Your task to perform on an android device: Open network settings Image 0: 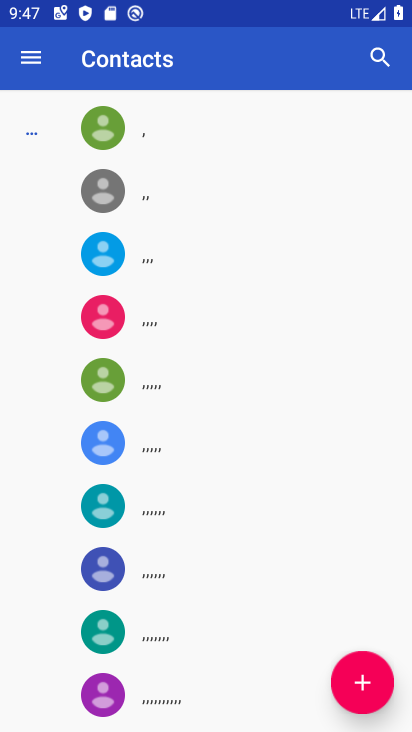
Step 0: press home button
Your task to perform on an android device: Open network settings Image 1: 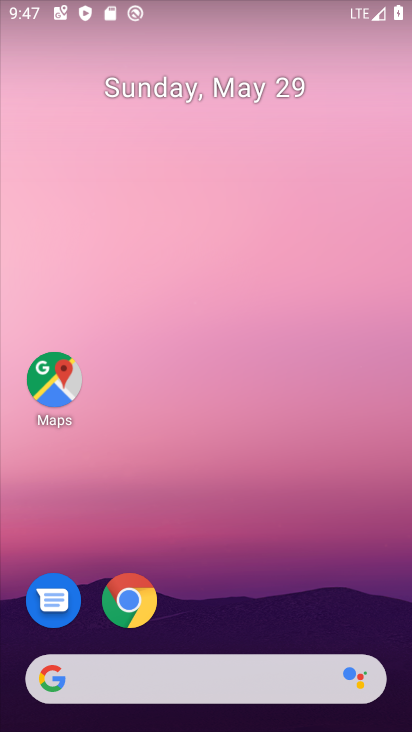
Step 1: drag from (240, 623) to (253, 54)
Your task to perform on an android device: Open network settings Image 2: 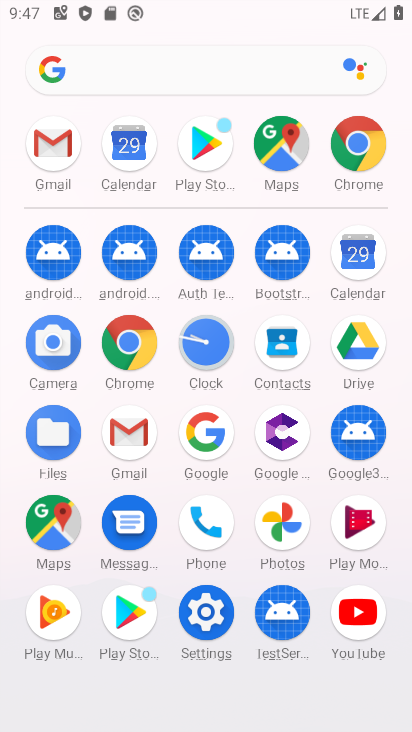
Step 2: click (196, 613)
Your task to perform on an android device: Open network settings Image 3: 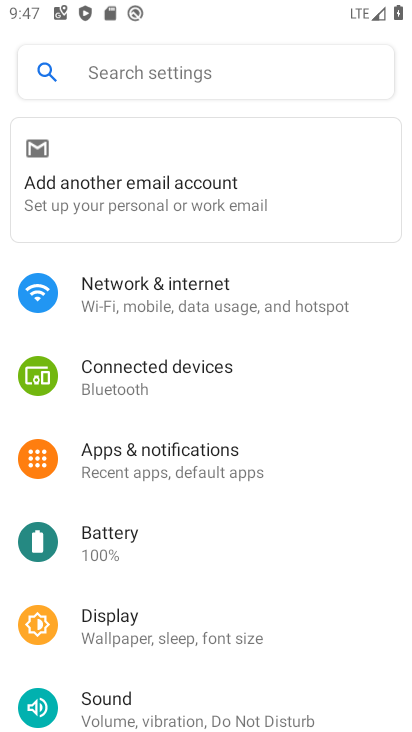
Step 3: click (155, 288)
Your task to perform on an android device: Open network settings Image 4: 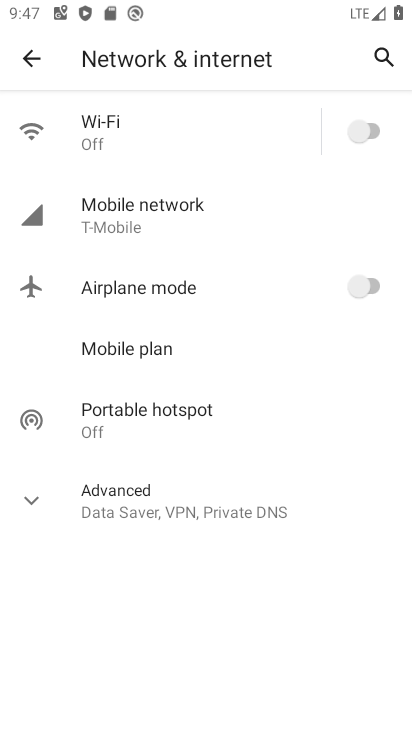
Step 4: task complete